Your task to perform on an android device: turn on showing notifications on the lock screen Image 0: 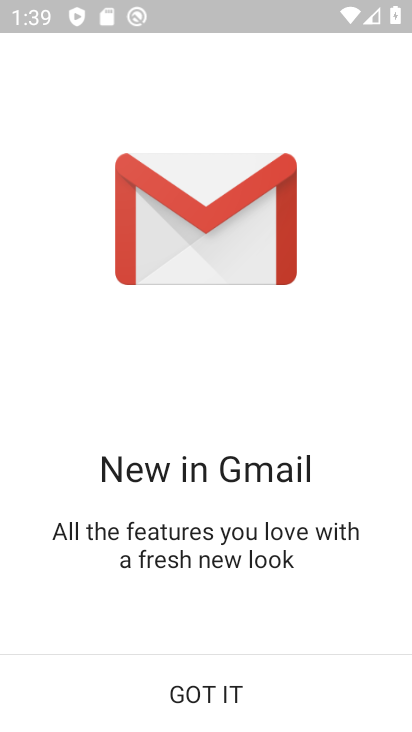
Step 0: press home button
Your task to perform on an android device: turn on showing notifications on the lock screen Image 1: 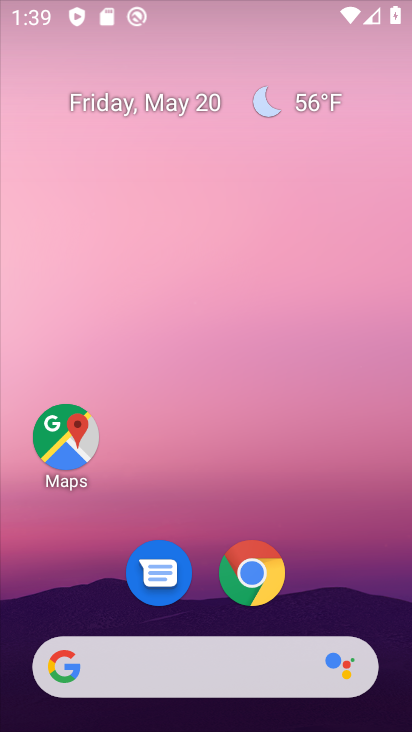
Step 1: drag from (382, 665) to (299, 28)
Your task to perform on an android device: turn on showing notifications on the lock screen Image 2: 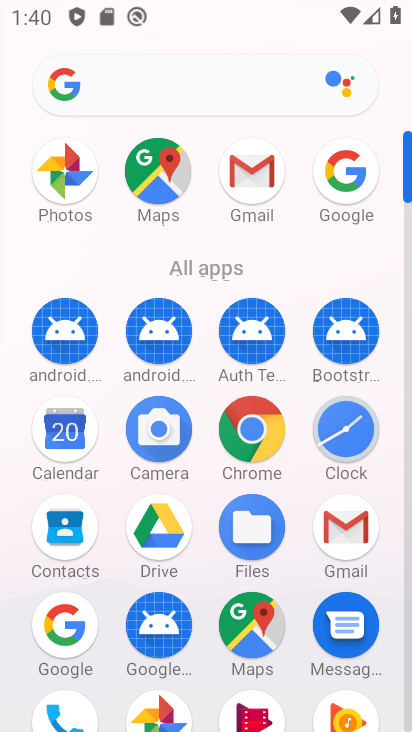
Step 2: drag from (196, 693) to (199, 135)
Your task to perform on an android device: turn on showing notifications on the lock screen Image 3: 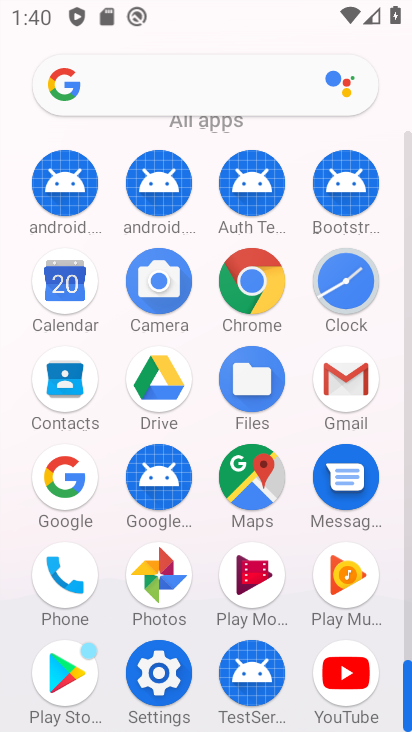
Step 3: click (156, 684)
Your task to perform on an android device: turn on showing notifications on the lock screen Image 4: 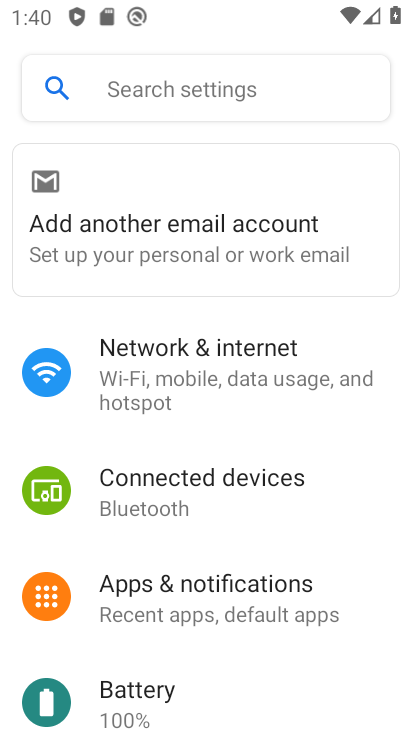
Step 4: click (237, 596)
Your task to perform on an android device: turn on showing notifications on the lock screen Image 5: 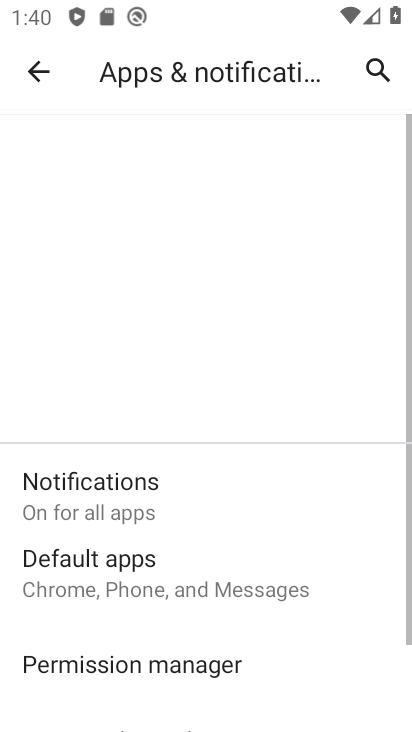
Step 5: click (176, 498)
Your task to perform on an android device: turn on showing notifications on the lock screen Image 6: 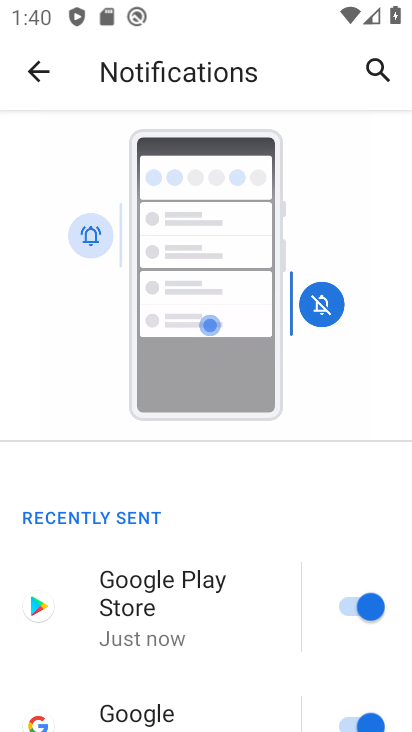
Step 6: drag from (160, 616) to (194, 98)
Your task to perform on an android device: turn on showing notifications on the lock screen Image 7: 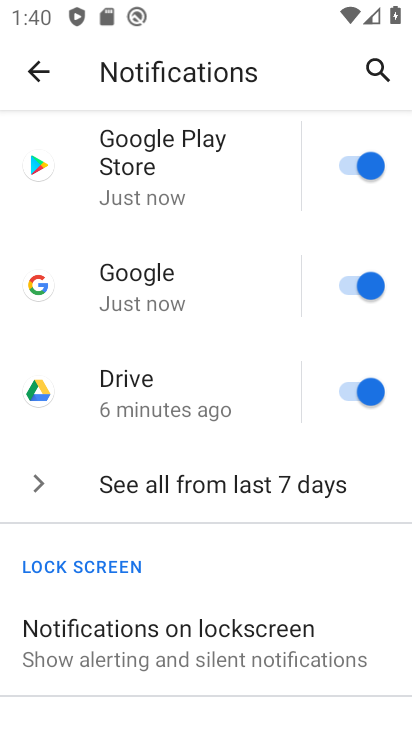
Step 7: click (155, 635)
Your task to perform on an android device: turn on showing notifications on the lock screen Image 8: 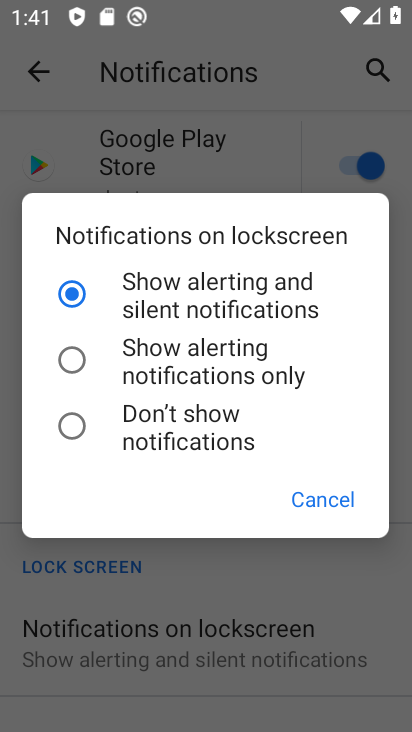
Step 8: task complete